Your task to perform on an android device: find photos in the google photos app Image 0: 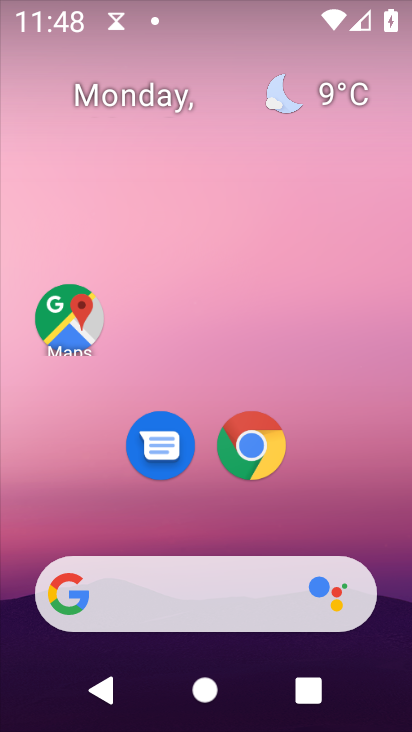
Step 0: drag from (348, 634) to (386, 110)
Your task to perform on an android device: find photos in the google photos app Image 1: 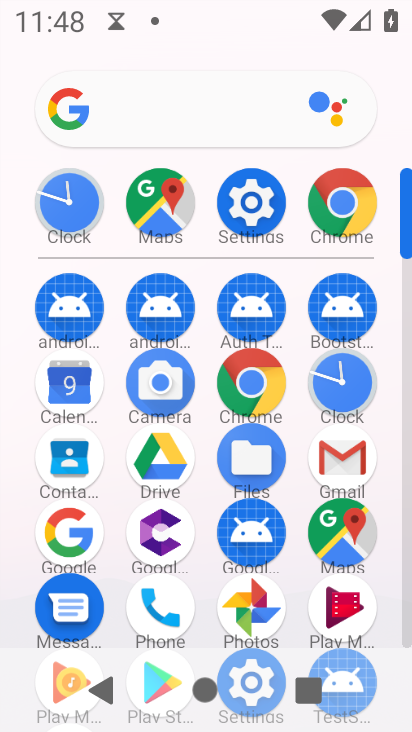
Step 1: click (258, 606)
Your task to perform on an android device: find photos in the google photos app Image 2: 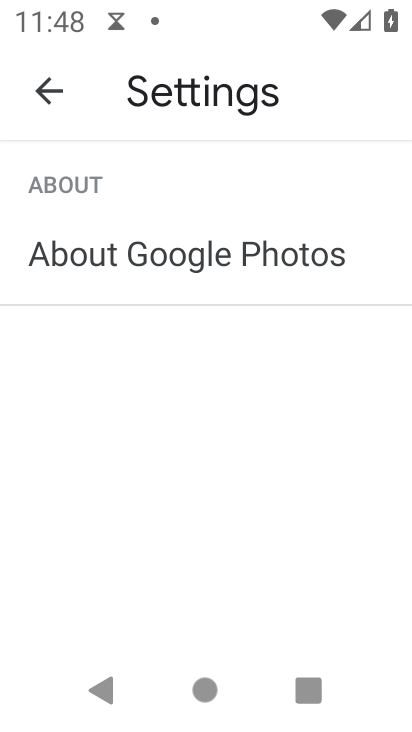
Step 2: press back button
Your task to perform on an android device: find photos in the google photos app Image 3: 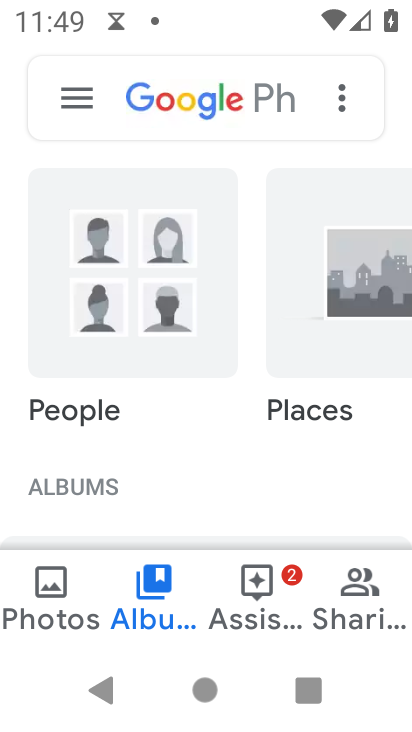
Step 3: click (78, 593)
Your task to perform on an android device: find photos in the google photos app Image 4: 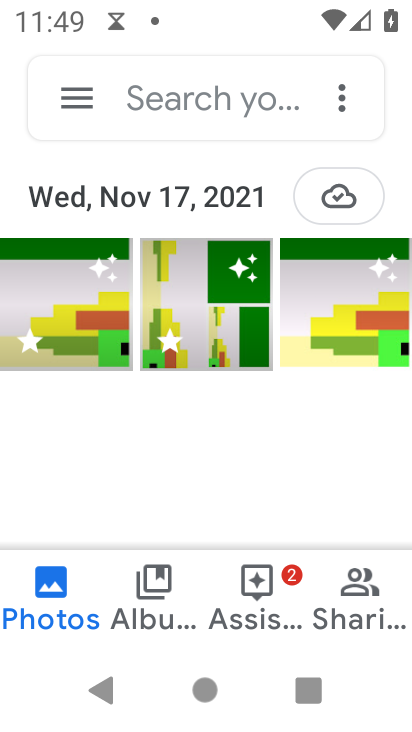
Step 4: task complete